Your task to perform on an android device: Open Amazon Image 0: 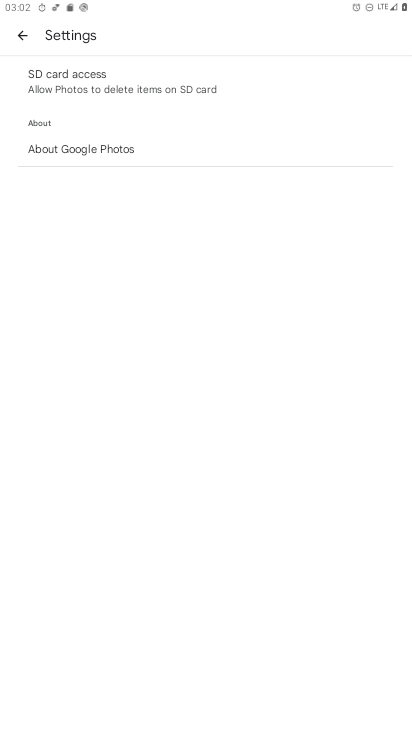
Step 0: press home button
Your task to perform on an android device: Open Amazon Image 1: 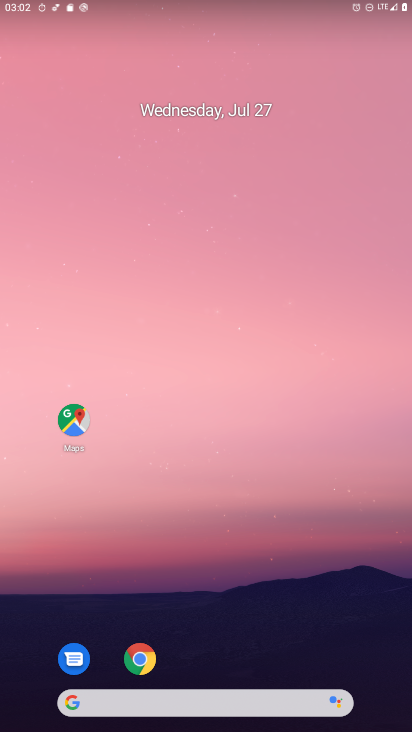
Step 1: drag from (245, 594) to (275, 46)
Your task to perform on an android device: Open Amazon Image 2: 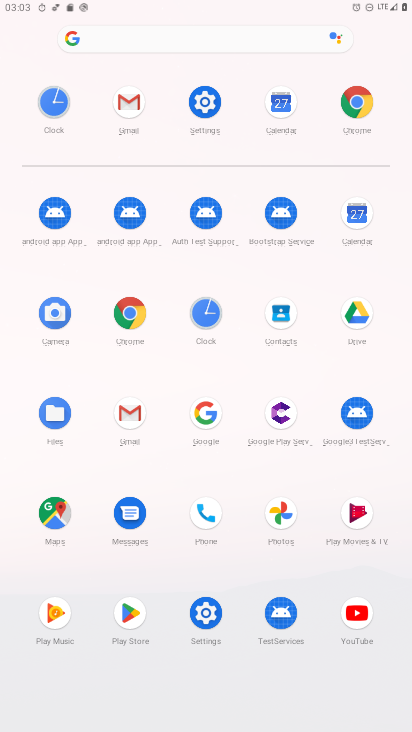
Step 2: click (360, 101)
Your task to perform on an android device: Open Amazon Image 3: 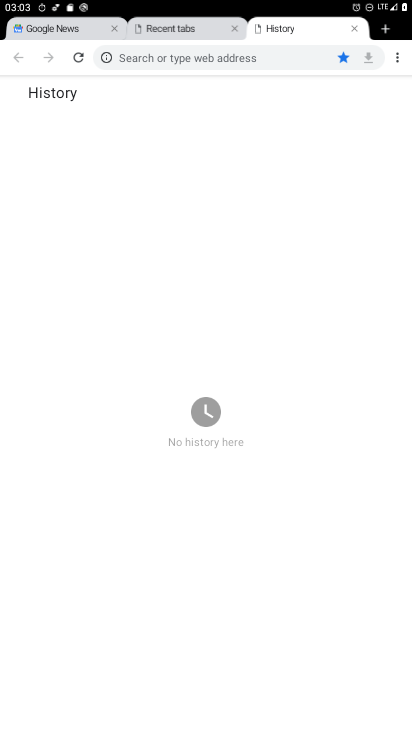
Step 3: click (279, 60)
Your task to perform on an android device: Open Amazon Image 4: 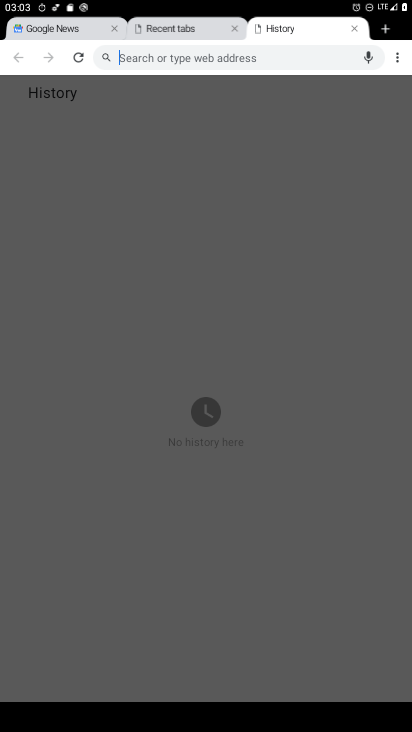
Step 4: type "amazon"
Your task to perform on an android device: Open Amazon Image 5: 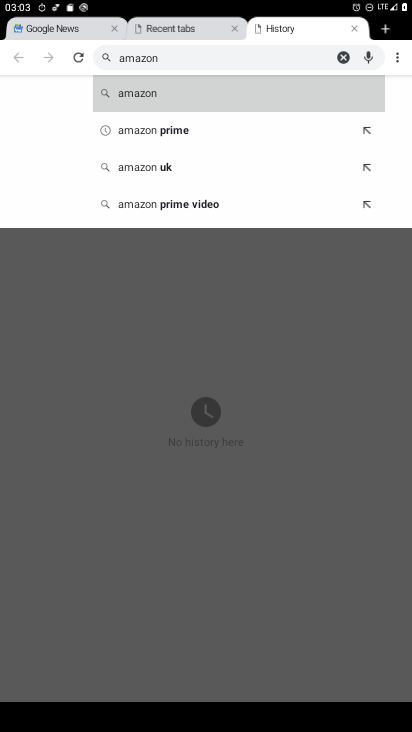
Step 5: click (127, 97)
Your task to perform on an android device: Open Amazon Image 6: 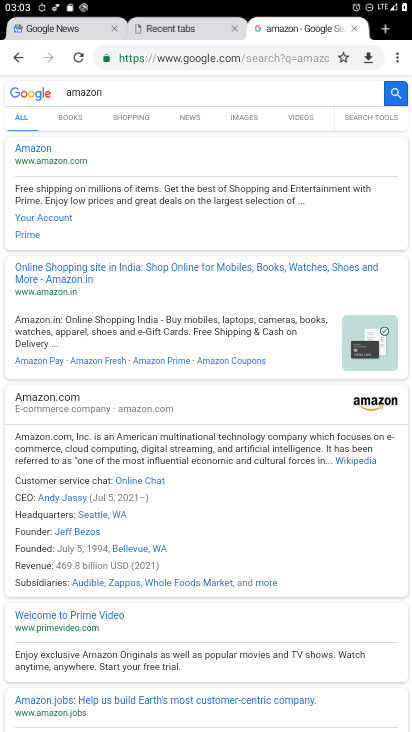
Step 6: click (63, 151)
Your task to perform on an android device: Open Amazon Image 7: 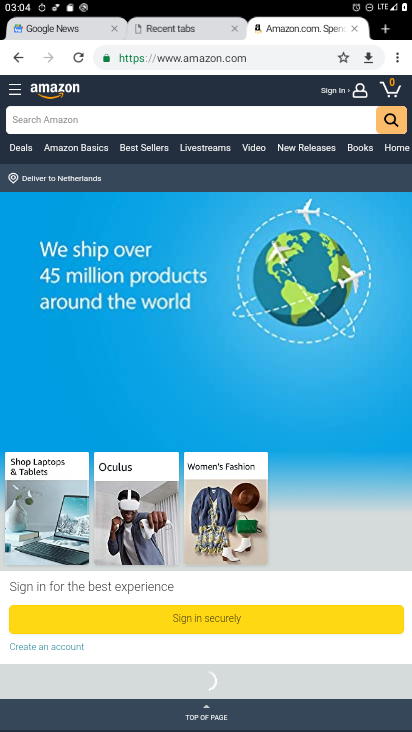
Step 7: task complete